Your task to perform on an android device: Clear the shopping cart on walmart.com. Search for "duracell triple a" on walmart.com, select the first entry, add it to the cart, then select checkout. Image 0: 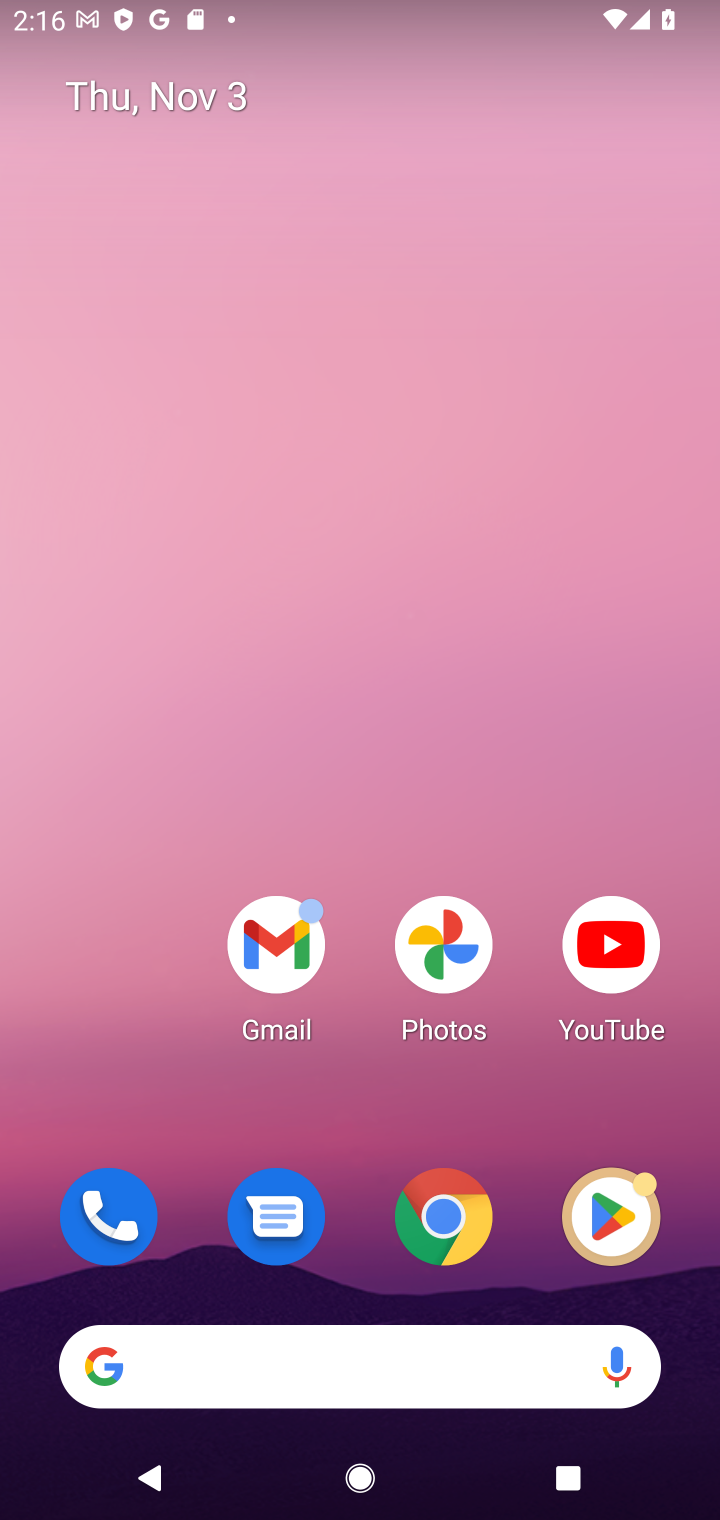
Step 0: drag from (357, 1183) to (363, 9)
Your task to perform on an android device: Clear the shopping cart on walmart.com. Search for "duracell triple a" on walmart.com, select the first entry, add it to the cart, then select checkout. Image 1: 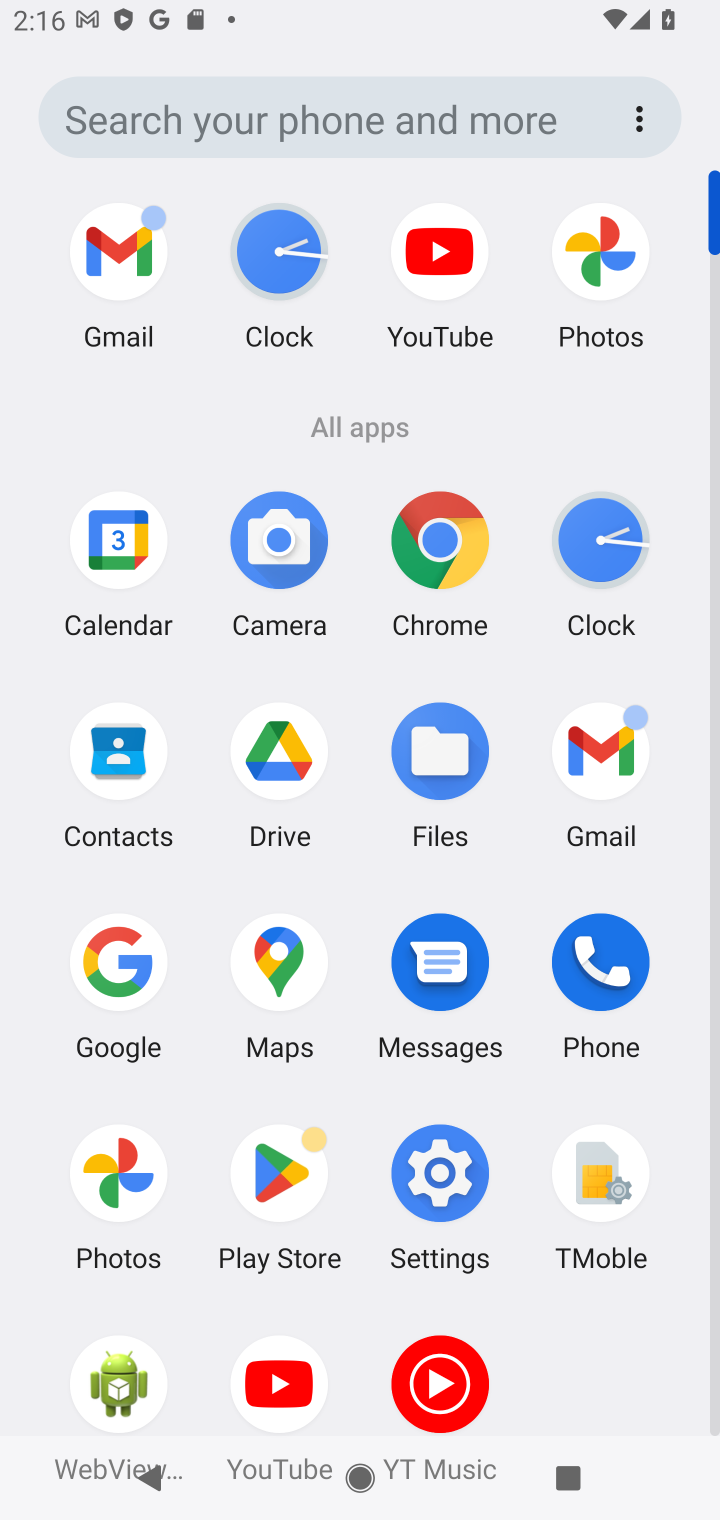
Step 1: click (436, 523)
Your task to perform on an android device: Clear the shopping cart on walmart.com. Search for "duracell triple a" on walmart.com, select the first entry, add it to the cart, then select checkout. Image 2: 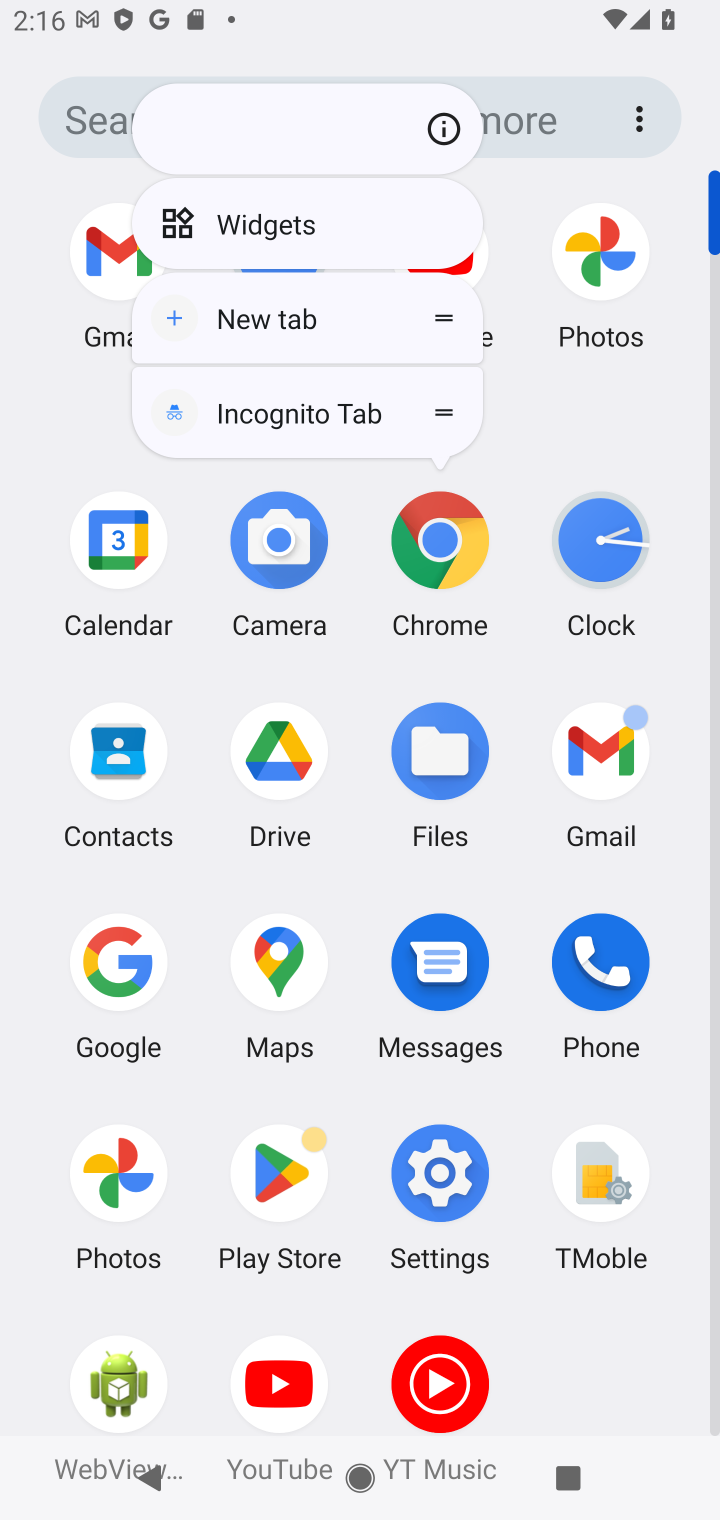
Step 2: click (436, 523)
Your task to perform on an android device: Clear the shopping cart on walmart.com. Search for "duracell triple a" on walmart.com, select the first entry, add it to the cart, then select checkout. Image 3: 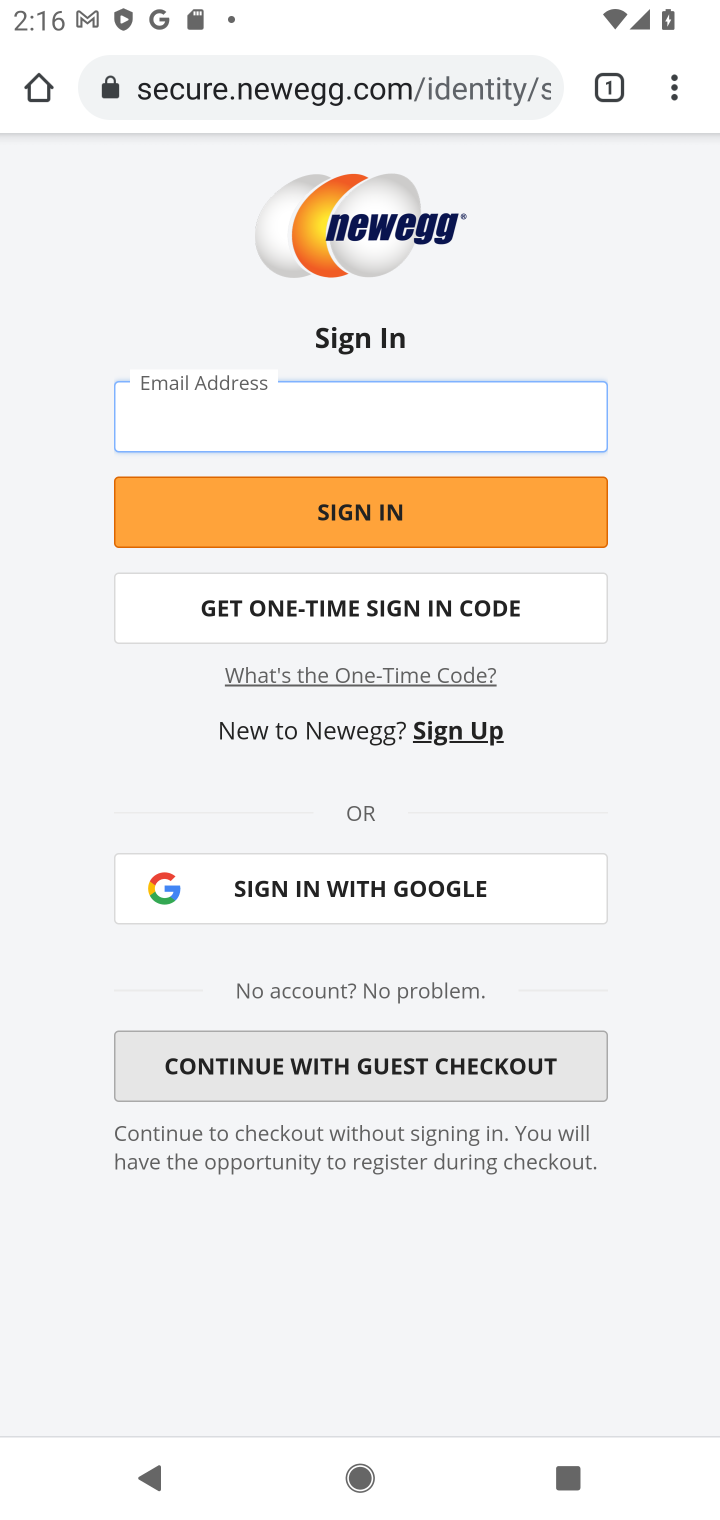
Step 3: click (218, 83)
Your task to perform on an android device: Clear the shopping cart on walmart.com. Search for "duracell triple a" on walmart.com, select the first entry, add it to the cart, then select checkout. Image 4: 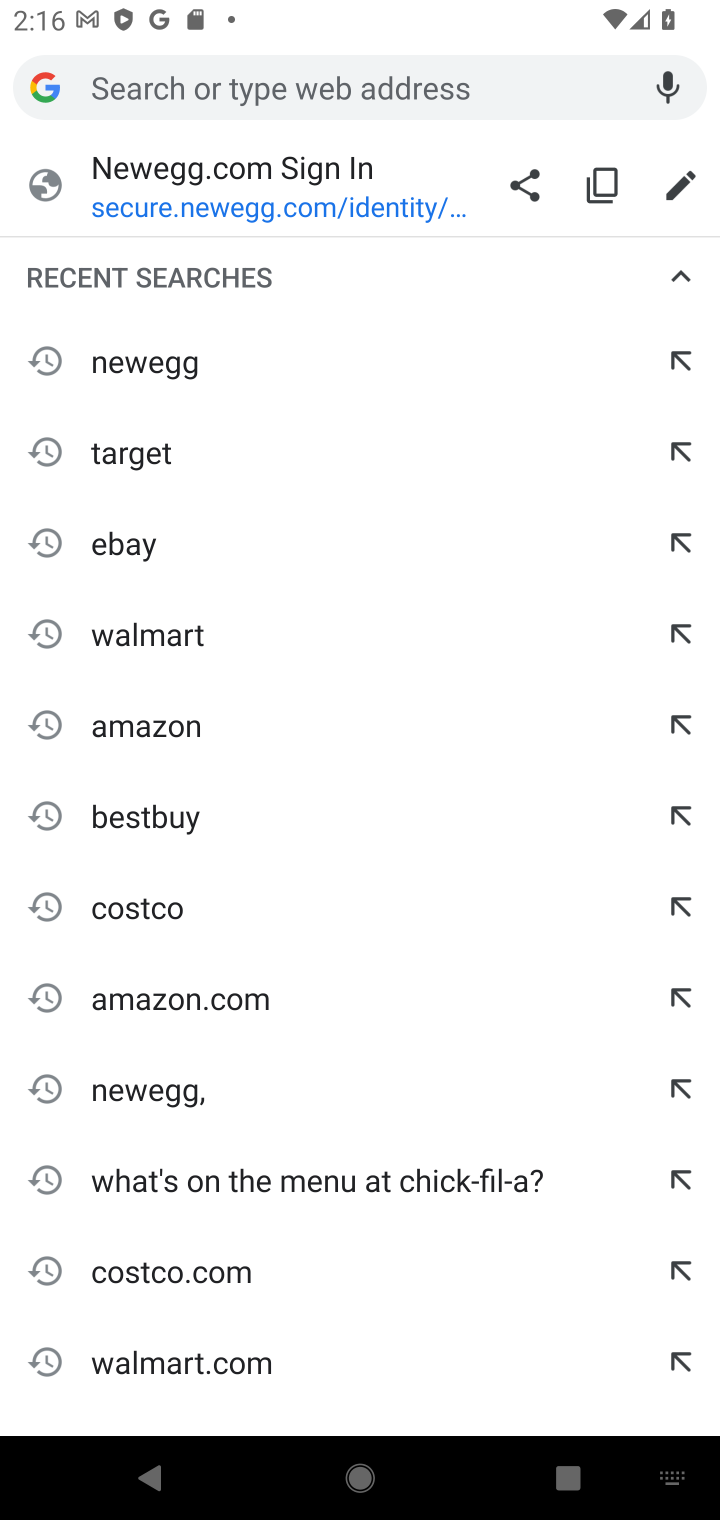
Step 4: click (160, 634)
Your task to perform on an android device: Clear the shopping cart on walmart.com. Search for "duracell triple a" on walmart.com, select the first entry, add it to the cart, then select checkout. Image 5: 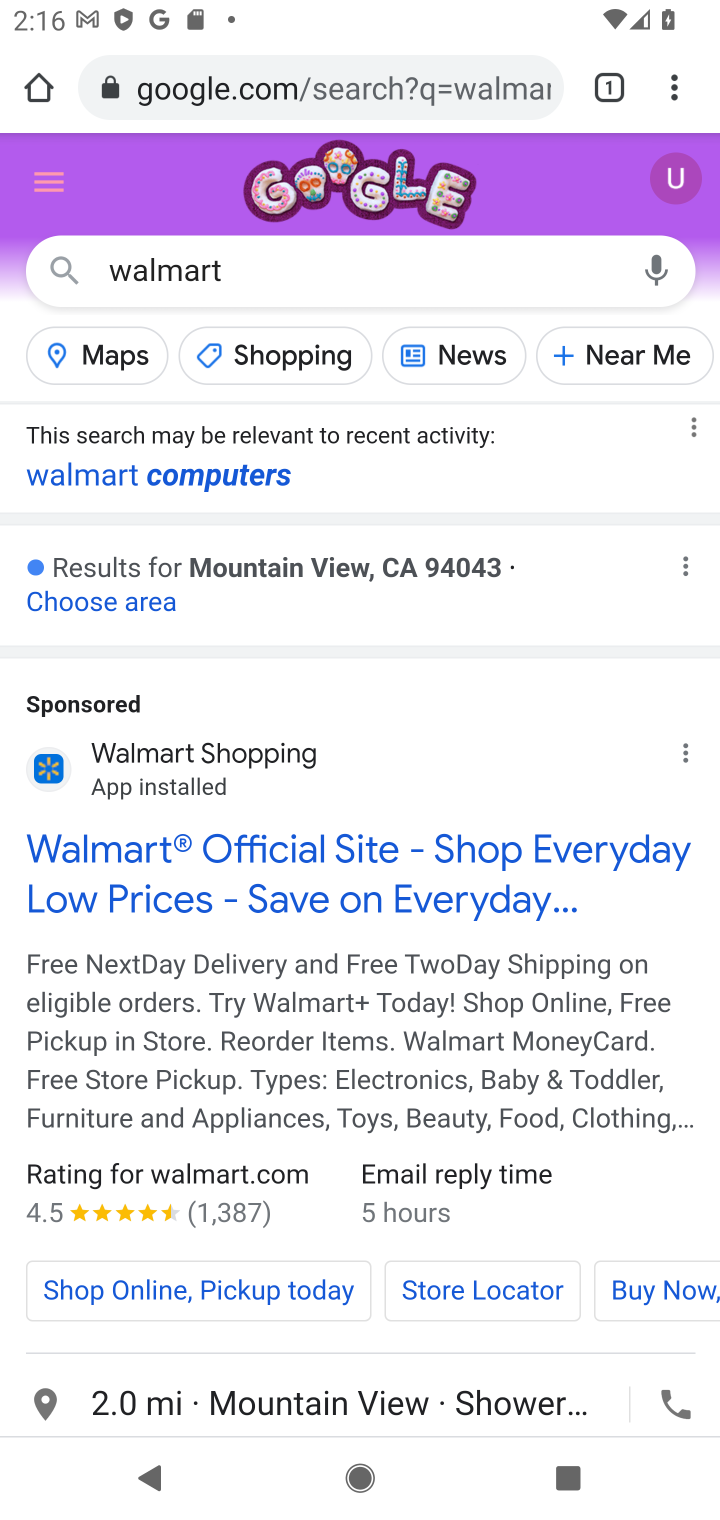
Step 5: click (278, 848)
Your task to perform on an android device: Clear the shopping cart on walmart.com. Search for "duracell triple a" on walmart.com, select the first entry, add it to the cart, then select checkout. Image 6: 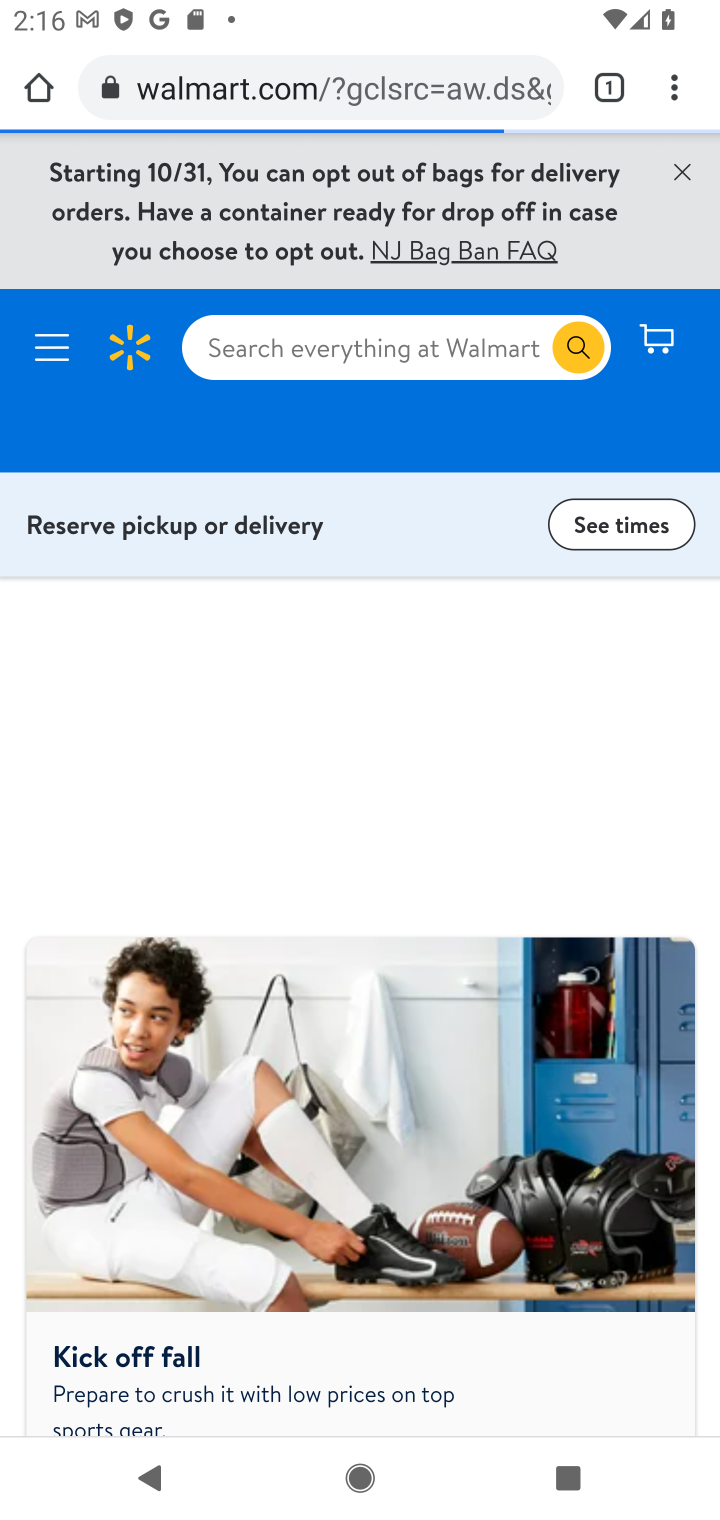
Step 6: click (304, 332)
Your task to perform on an android device: Clear the shopping cart on walmart.com. Search for "duracell triple a" on walmart.com, select the first entry, add it to the cart, then select checkout. Image 7: 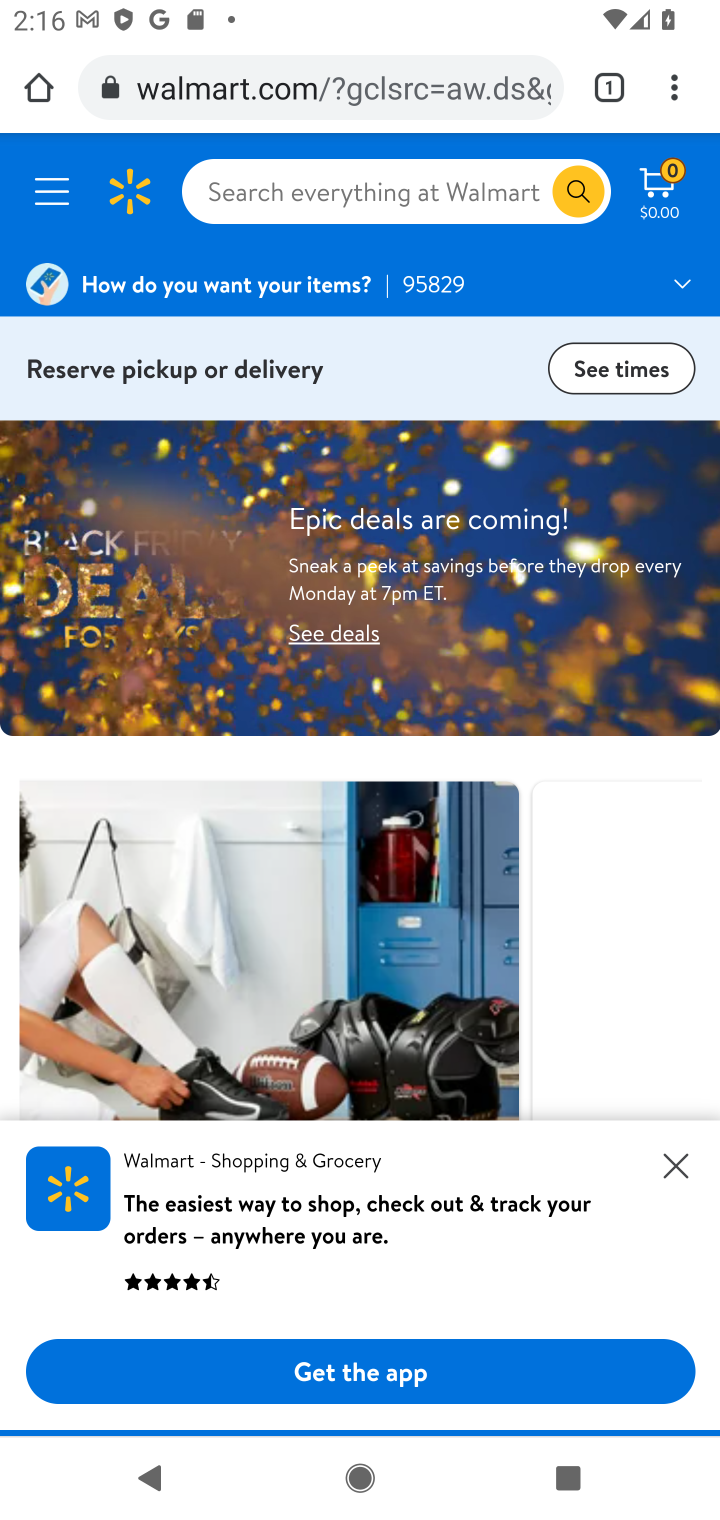
Step 7: click (677, 1171)
Your task to perform on an android device: Clear the shopping cart on walmart.com. Search for "duracell triple a" on walmart.com, select the first entry, add it to the cart, then select checkout. Image 8: 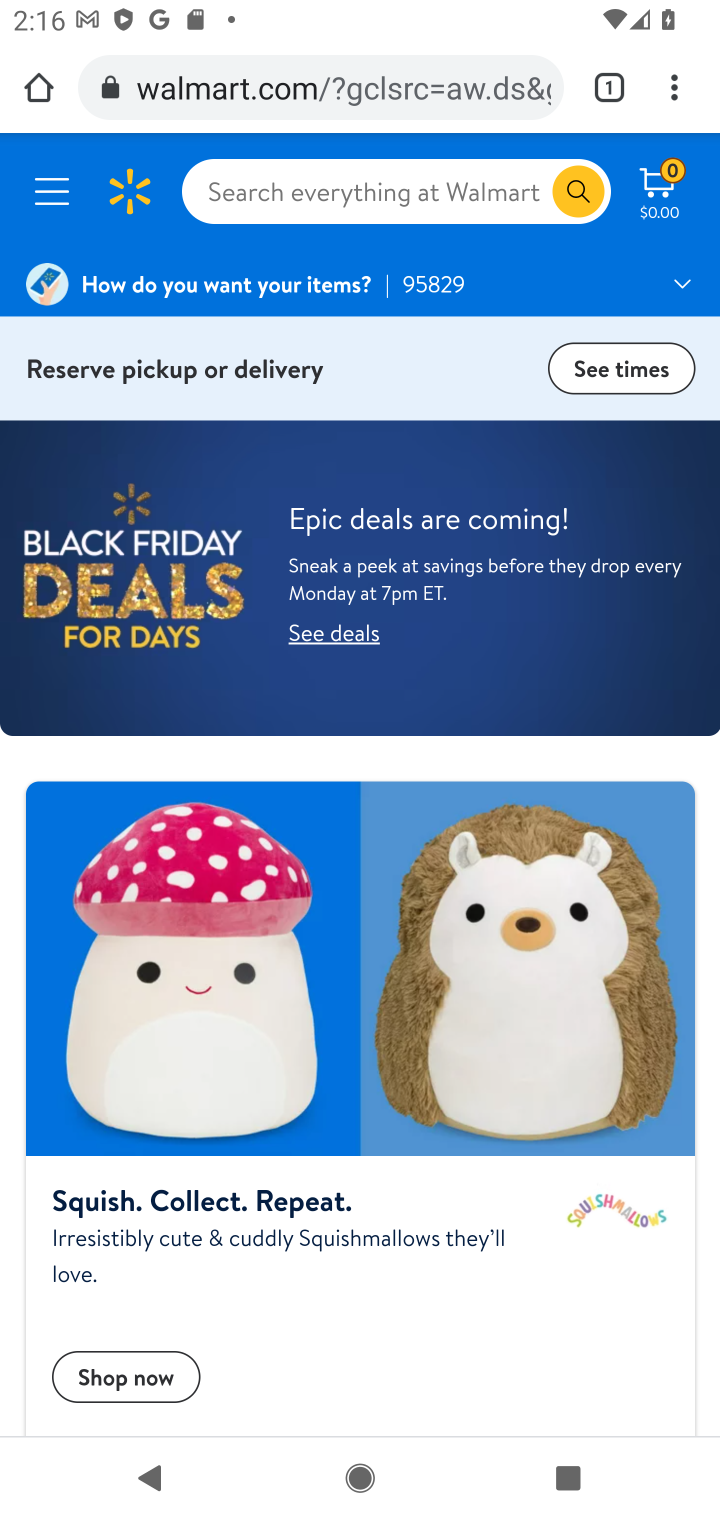
Step 8: click (296, 184)
Your task to perform on an android device: Clear the shopping cart on walmart.com. Search for "duracell triple a" on walmart.com, select the first entry, add it to the cart, then select checkout. Image 9: 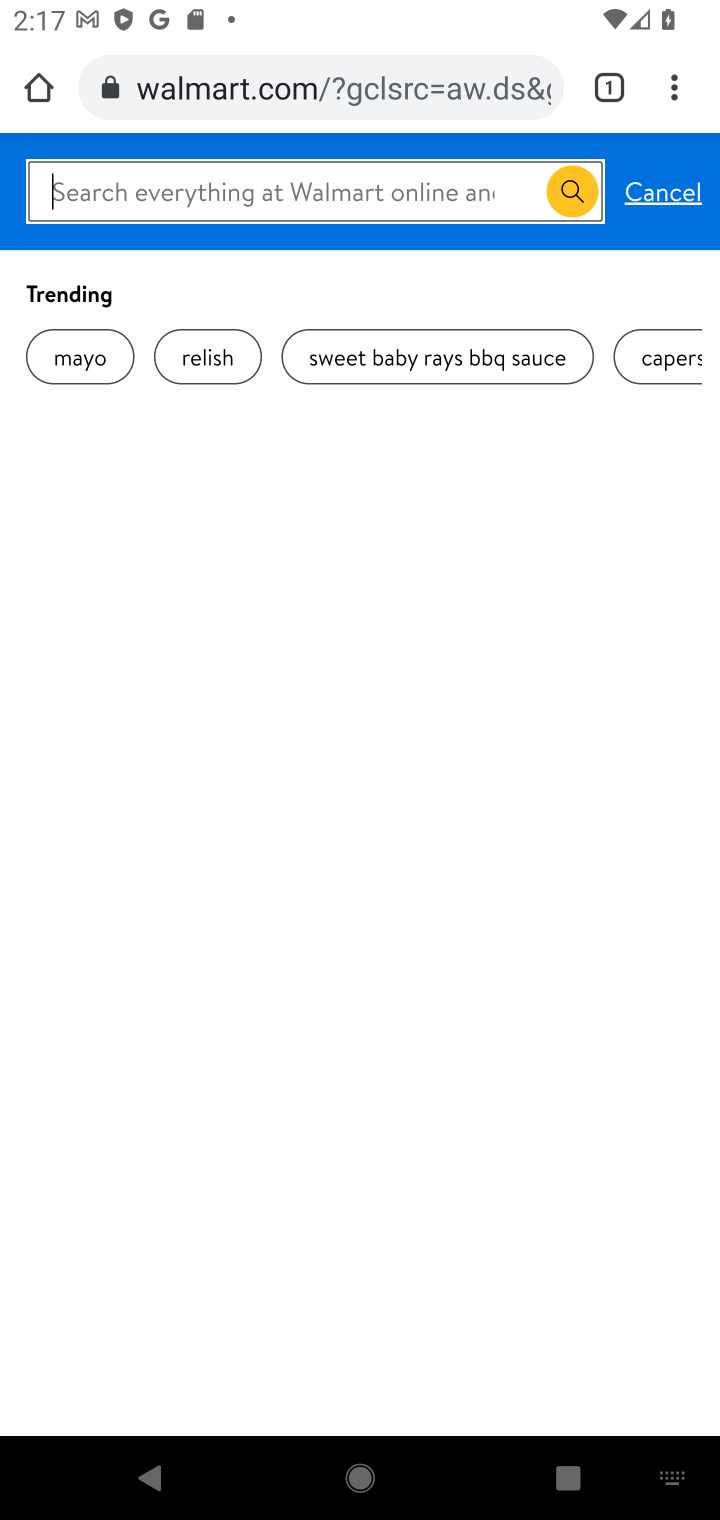
Step 9: type "duracell triple a"
Your task to perform on an android device: Clear the shopping cart on walmart.com. Search for "duracell triple a" on walmart.com, select the first entry, add it to the cart, then select checkout. Image 10: 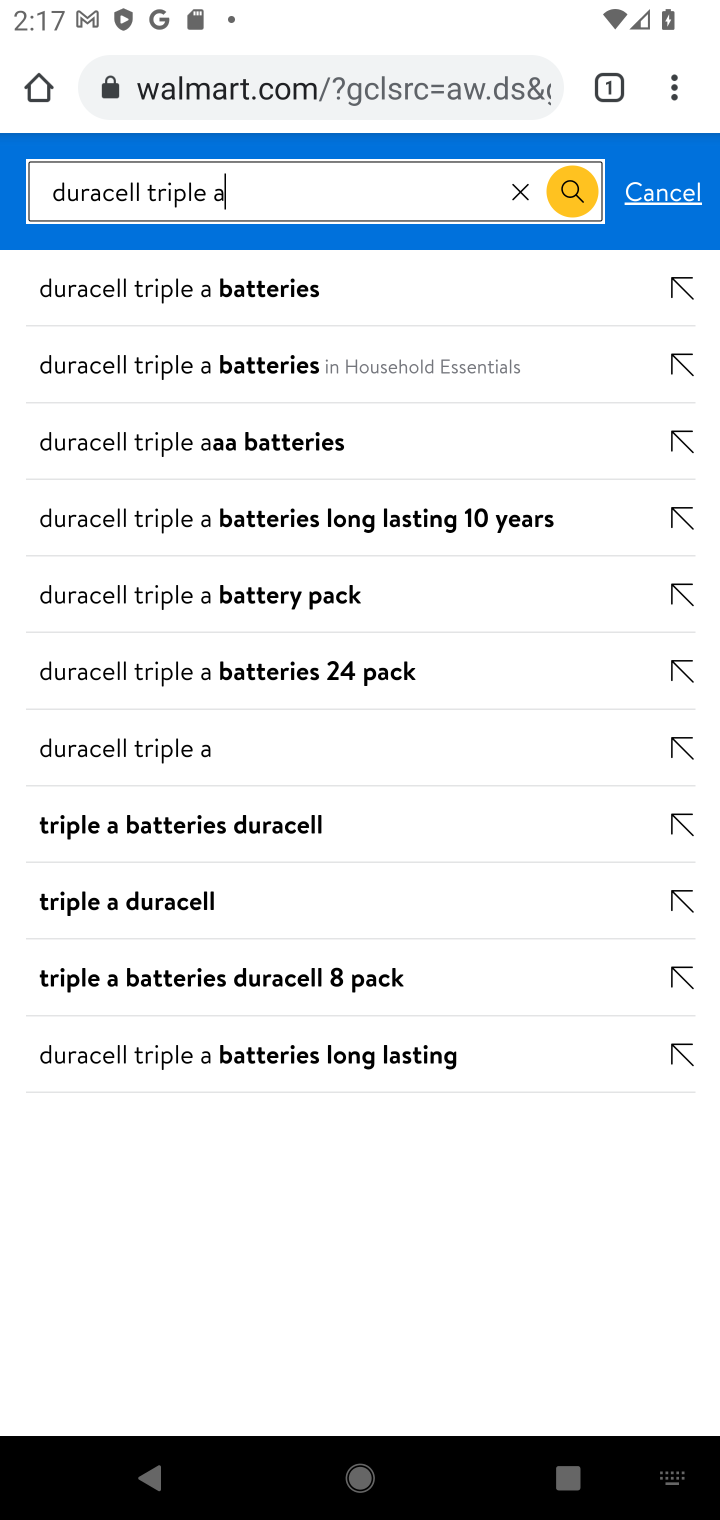
Step 10: click (300, 357)
Your task to perform on an android device: Clear the shopping cart on walmart.com. Search for "duracell triple a" on walmart.com, select the first entry, add it to the cart, then select checkout. Image 11: 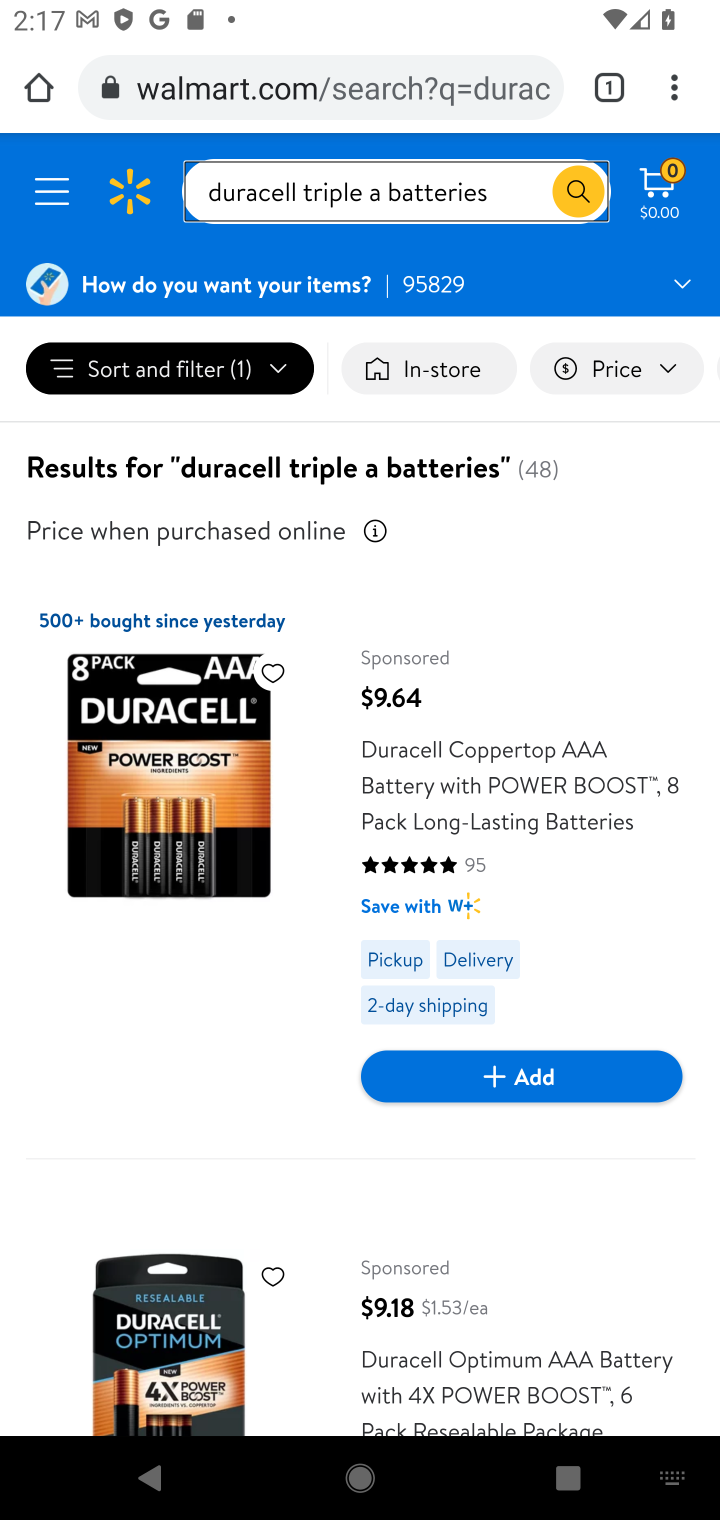
Step 11: click (450, 775)
Your task to perform on an android device: Clear the shopping cart on walmart.com. Search for "duracell triple a" on walmart.com, select the first entry, add it to the cart, then select checkout. Image 12: 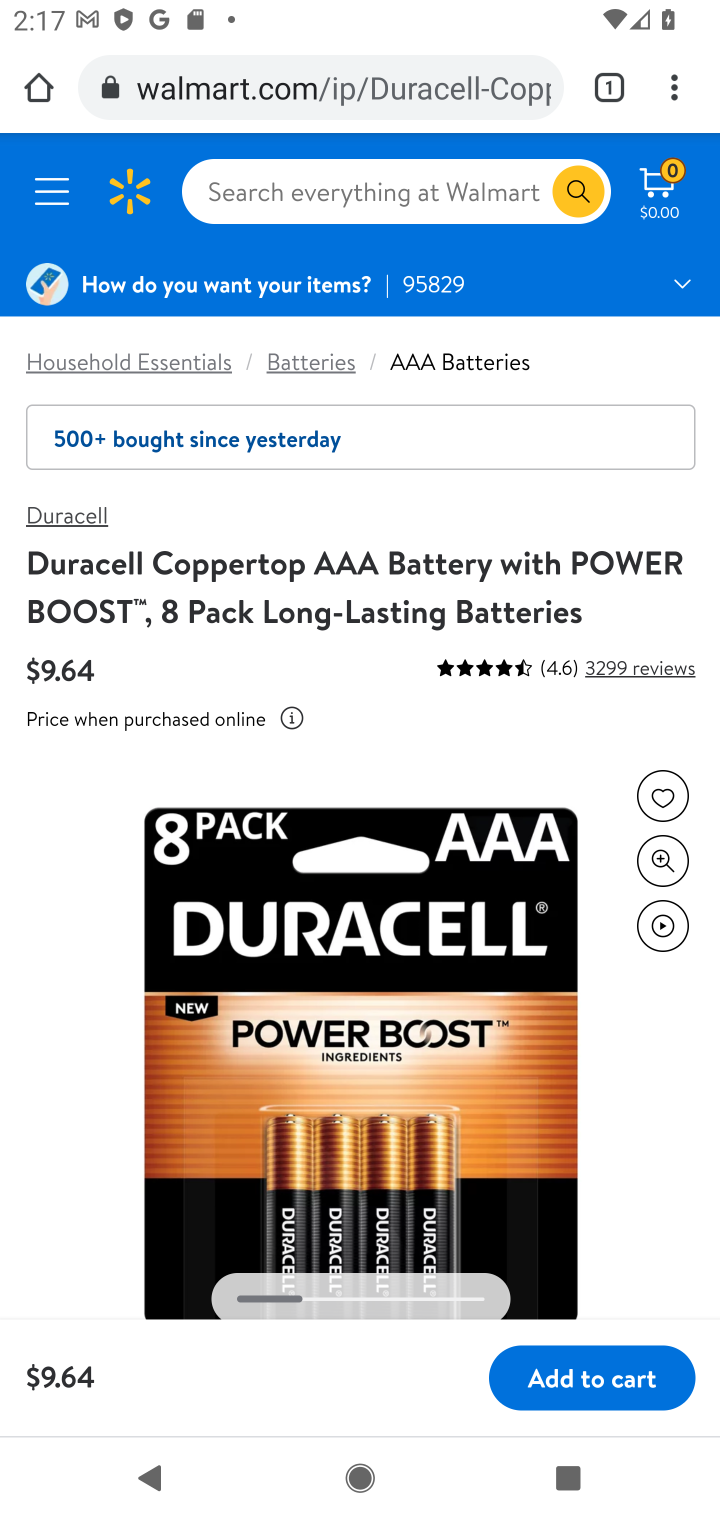
Step 12: drag from (108, 1171) to (204, 417)
Your task to perform on an android device: Clear the shopping cart on walmart.com. Search for "duracell triple a" on walmart.com, select the first entry, add it to the cart, then select checkout. Image 13: 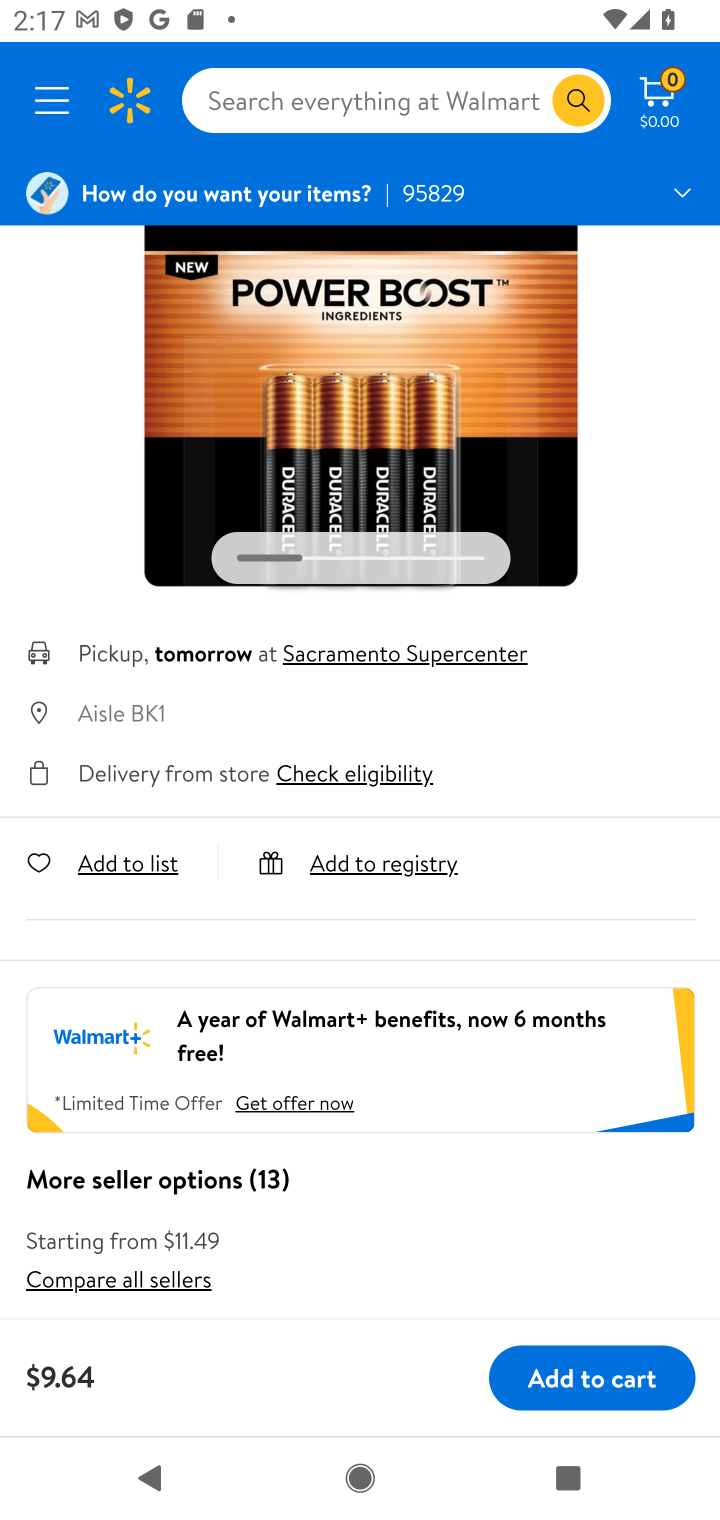
Step 13: click (612, 1375)
Your task to perform on an android device: Clear the shopping cart on walmart.com. Search for "duracell triple a" on walmart.com, select the first entry, add it to the cart, then select checkout. Image 14: 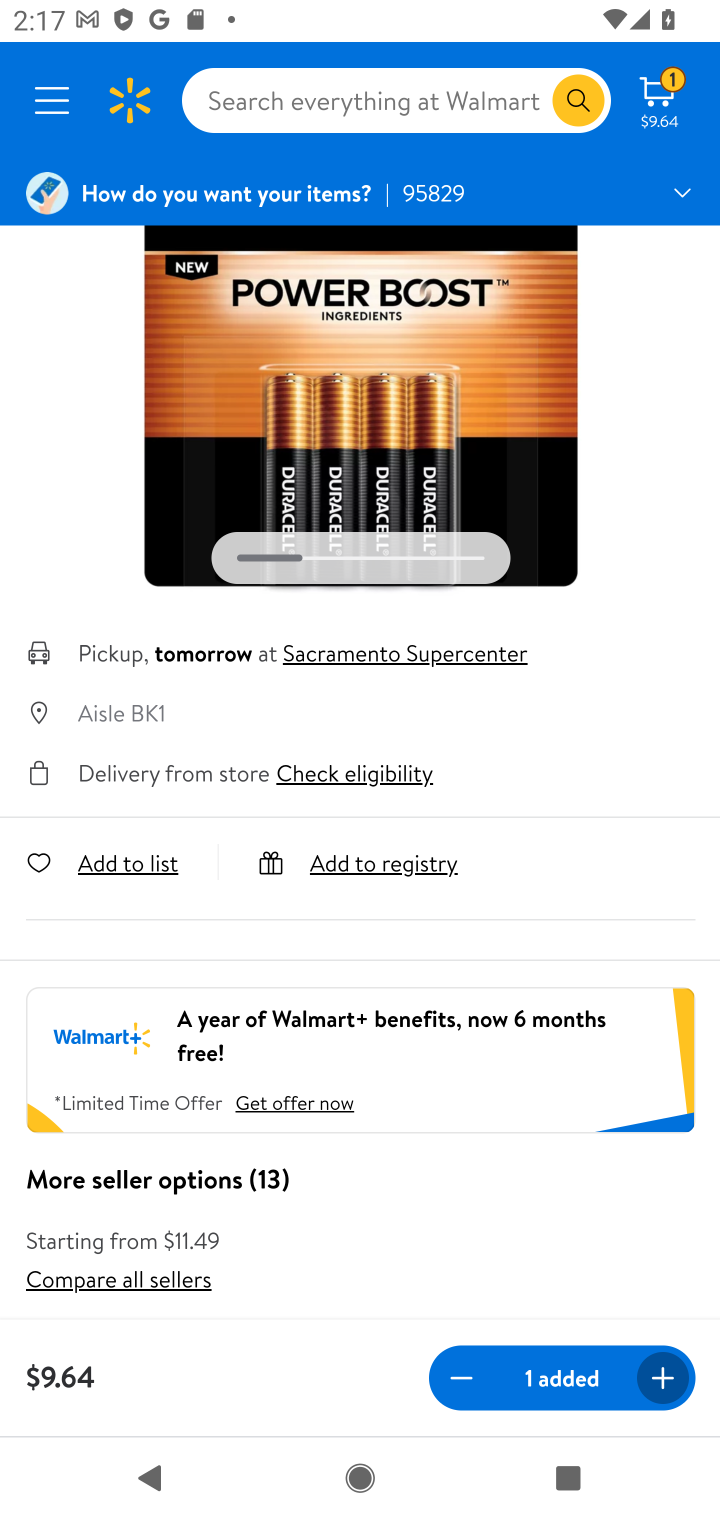
Step 14: click (662, 92)
Your task to perform on an android device: Clear the shopping cart on walmart.com. Search for "duracell triple a" on walmart.com, select the first entry, add it to the cart, then select checkout. Image 15: 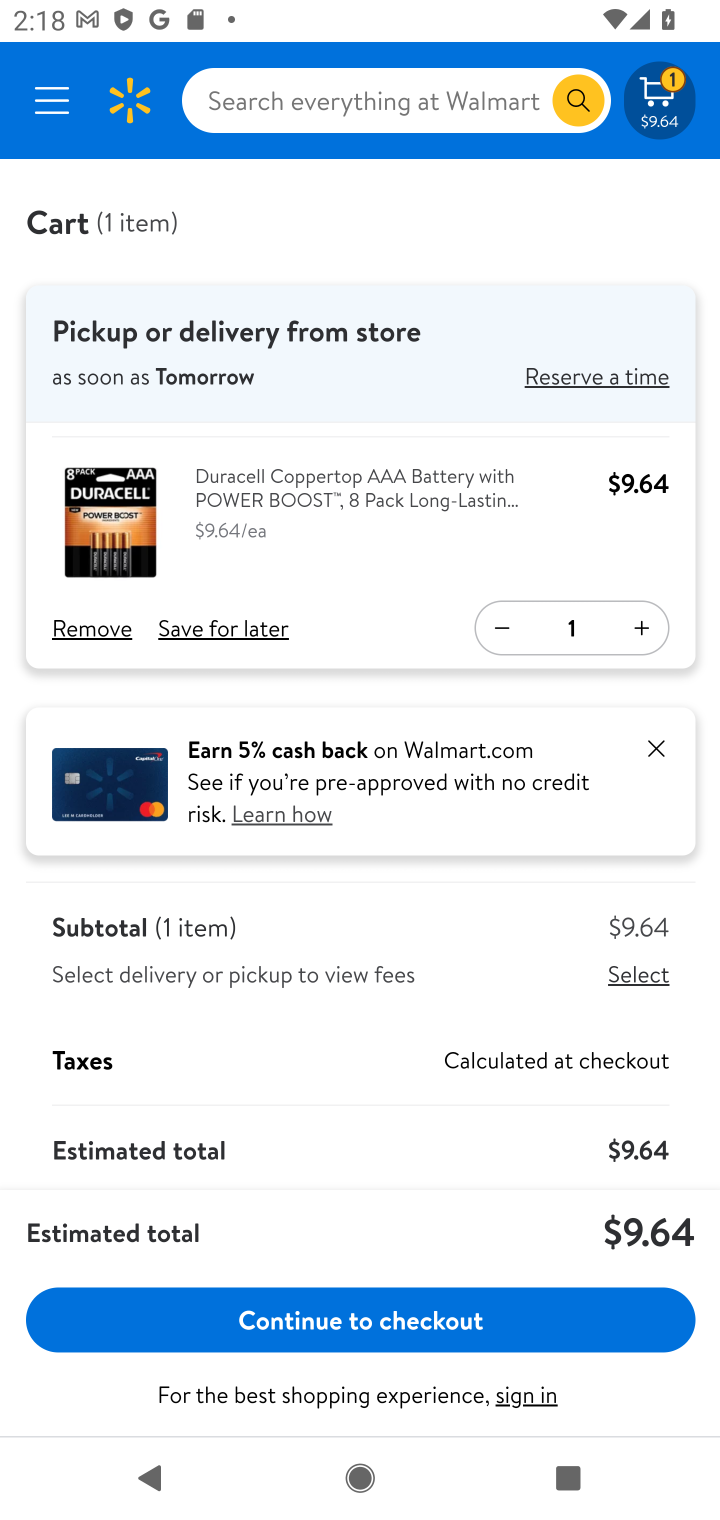
Step 15: click (363, 1308)
Your task to perform on an android device: Clear the shopping cart on walmart.com. Search for "duracell triple a" on walmart.com, select the first entry, add it to the cart, then select checkout. Image 16: 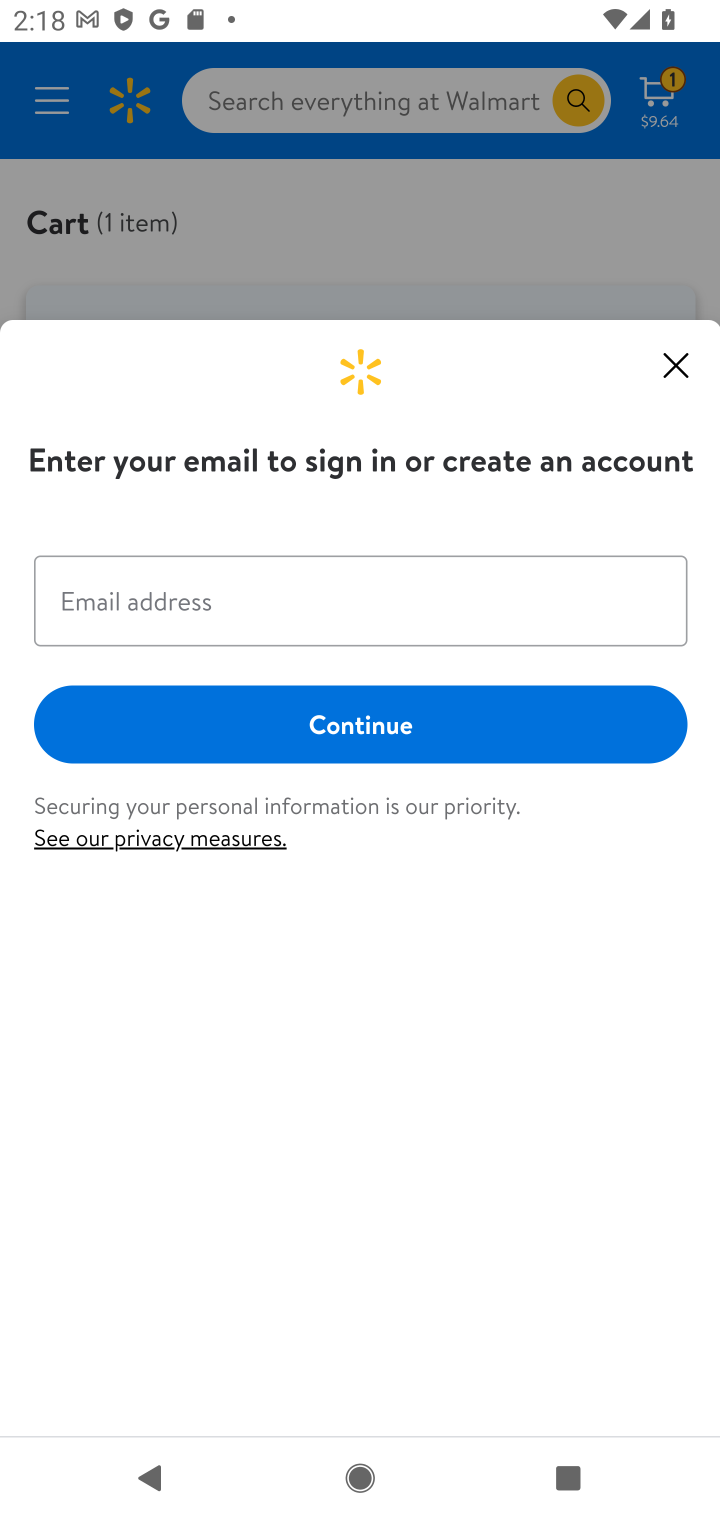
Step 16: click (683, 368)
Your task to perform on an android device: Clear the shopping cart on walmart.com. Search for "duracell triple a" on walmart.com, select the first entry, add it to the cart, then select checkout. Image 17: 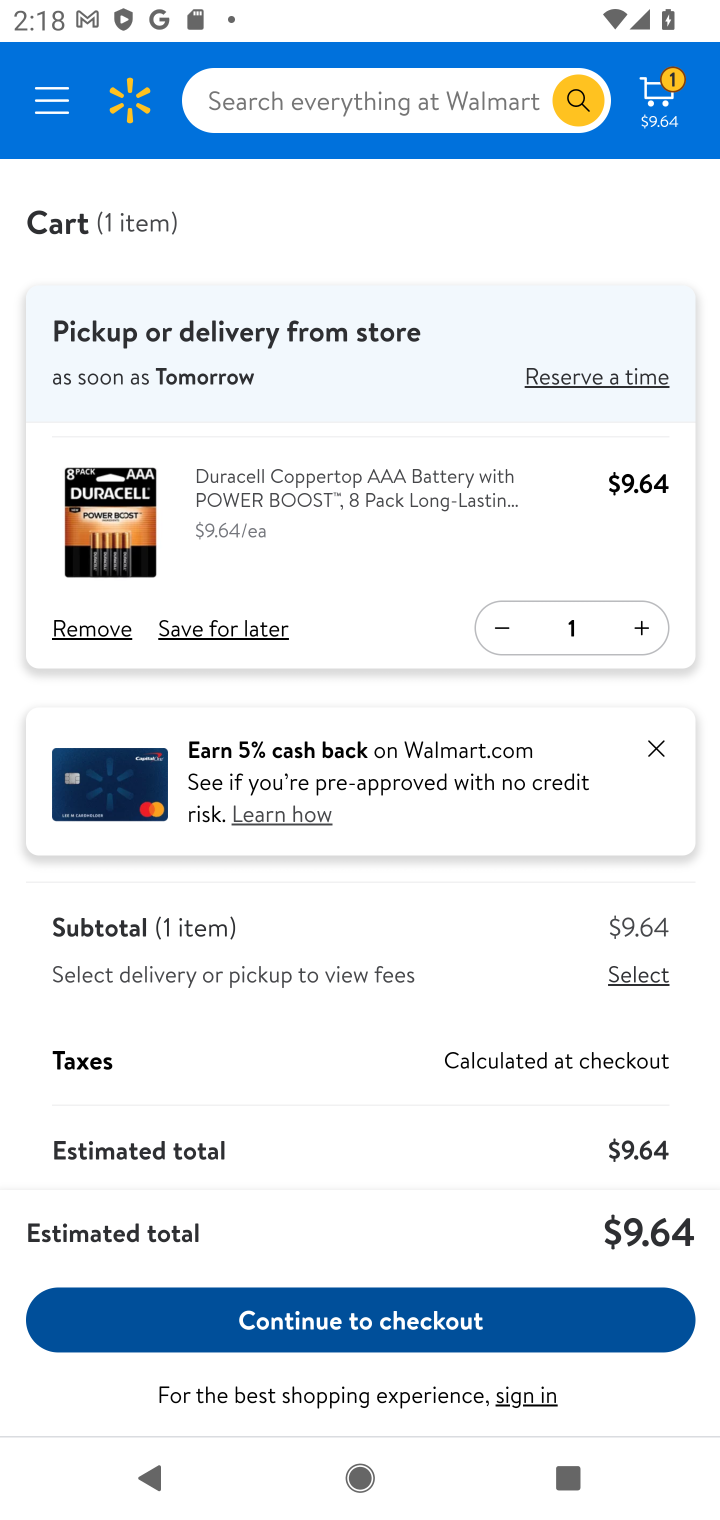
Step 17: task complete